Your task to perform on an android device: Add alienware aurora to the cart on target.com, then select checkout. Image 0: 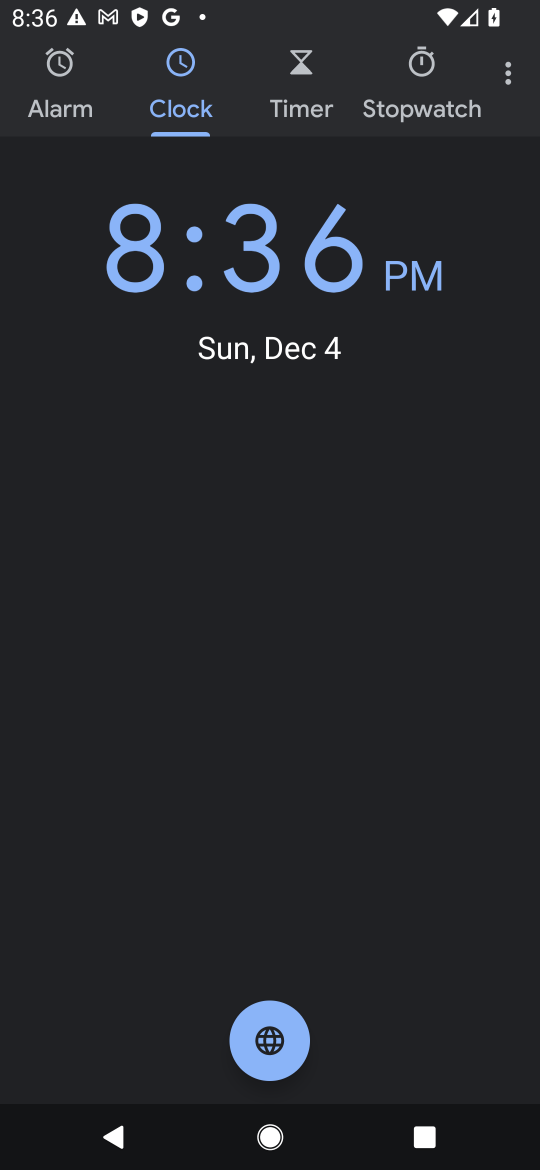
Step 0: press home button
Your task to perform on an android device: Add alienware aurora to the cart on target.com, then select checkout. Image 1: 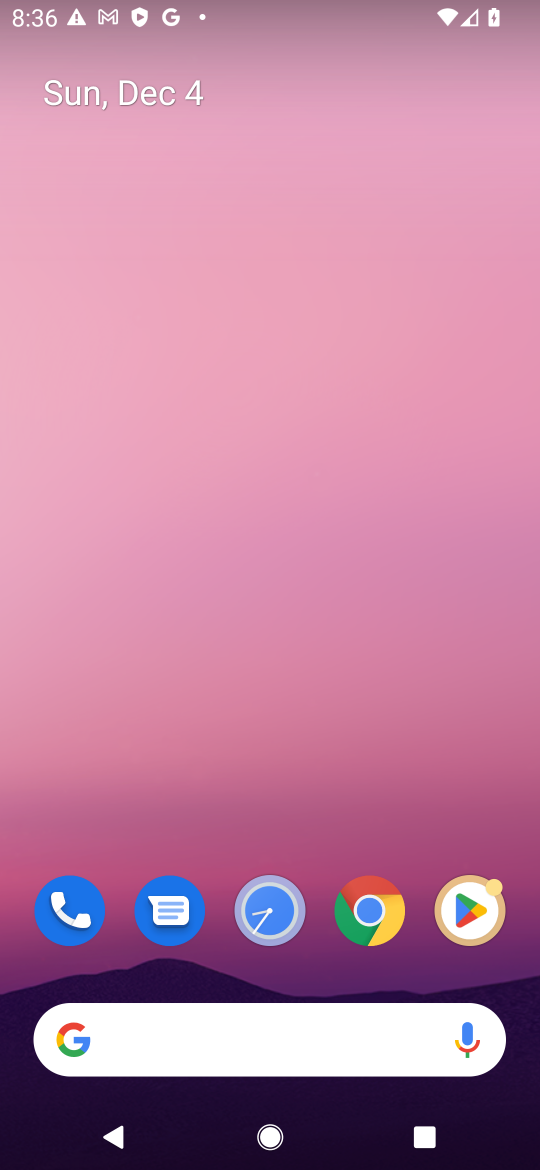
Step 1: drag from (357, 1117) to (373, 20)
Your task to perform on an android device: Add alienware aurora to the cart on target.com, then select checkout. Image 2: 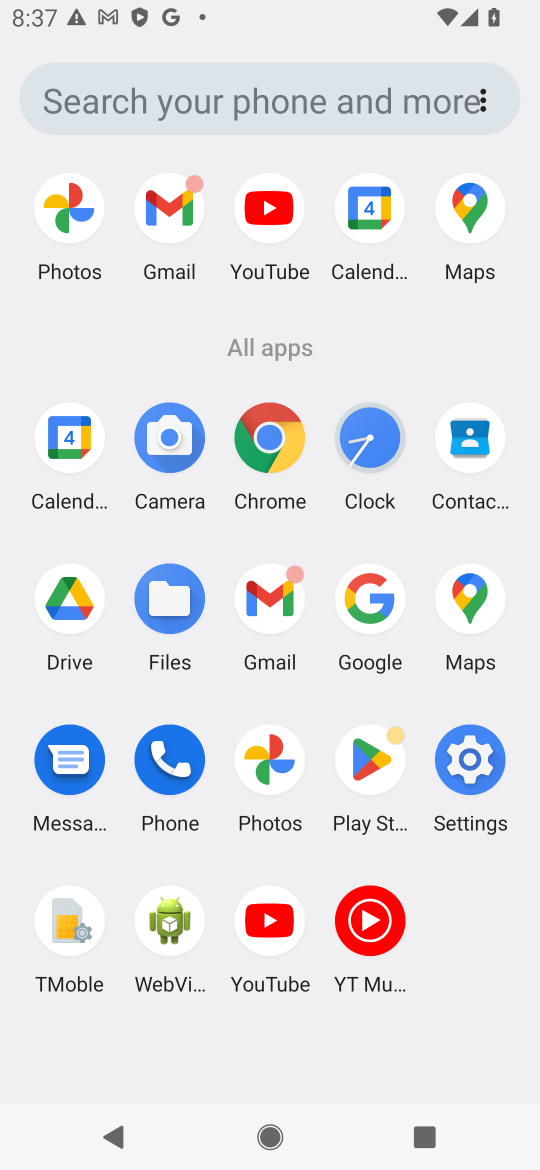
Step 2: click (267, 445)
Your task to perform on an android device: Add alienware aurora to the cart on target.com, then select checkout. Image 3: 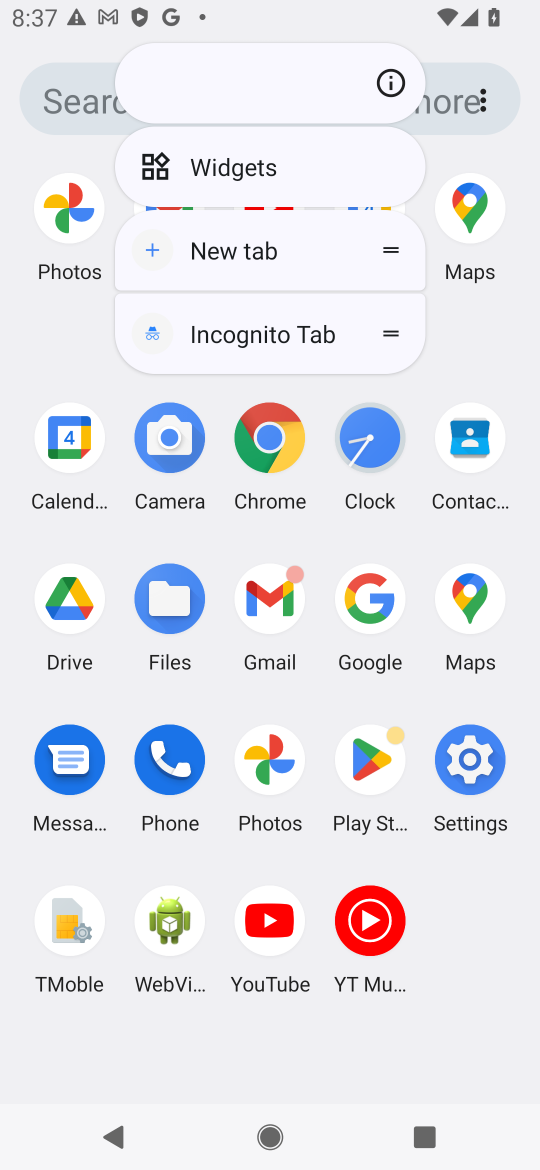
Step 3: click (277, 441)
Your task to perform on an android device: Add alienware aurora to the cart on target.com, then select checkout. Image 4: 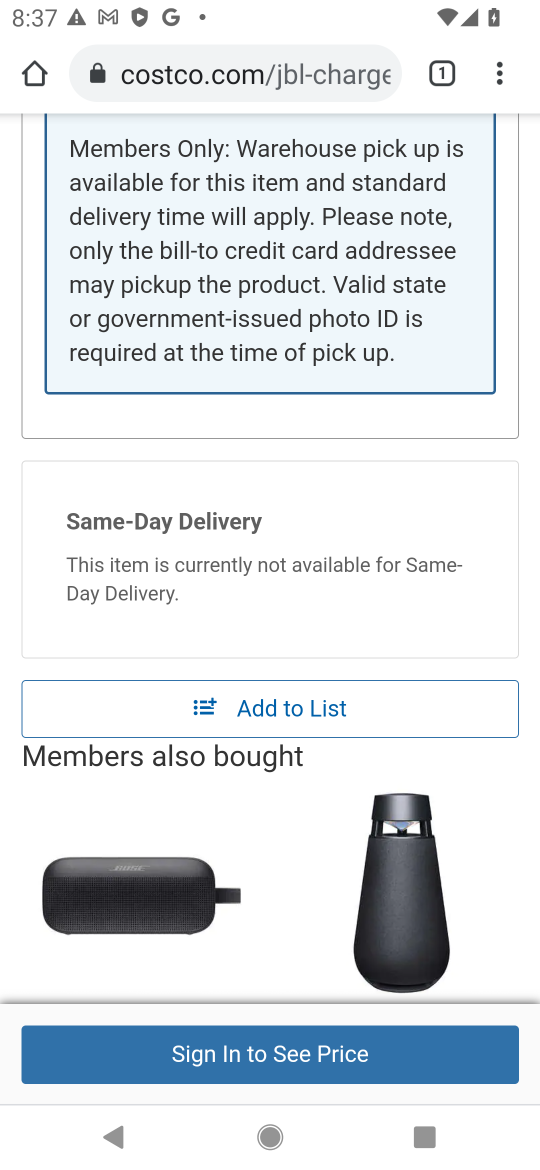
Step 4: click (213, 63)
Your task to perform on an android device: Add alienware aurora to the cart on target.com, then select checkout. Image 5: 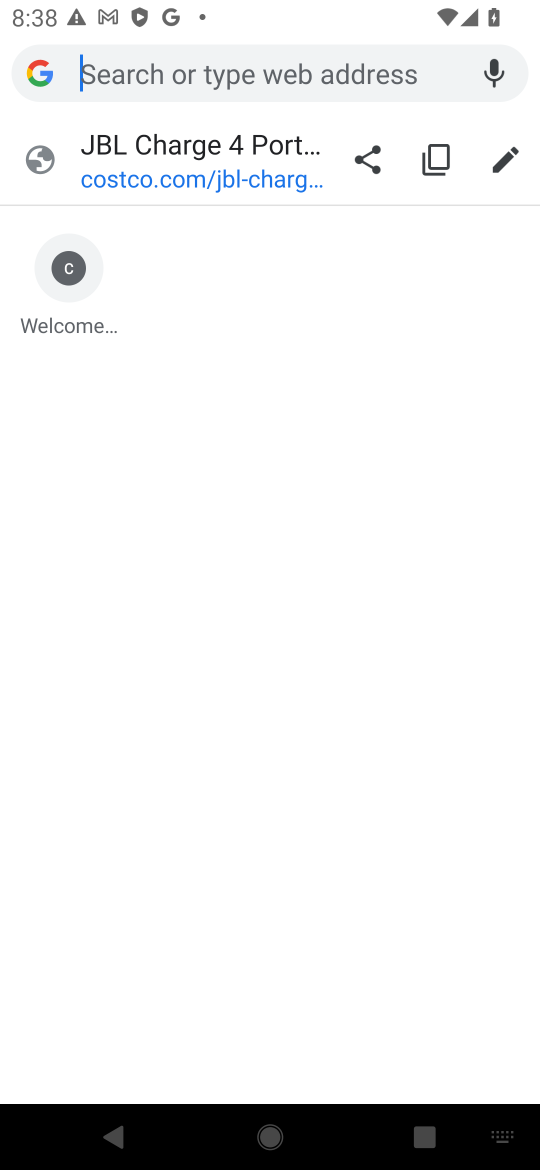
Step 5: type "target.com"
Your task to perform on an android device: Add alienware aurora to the cart on target.com, then select checkout. Image 6: 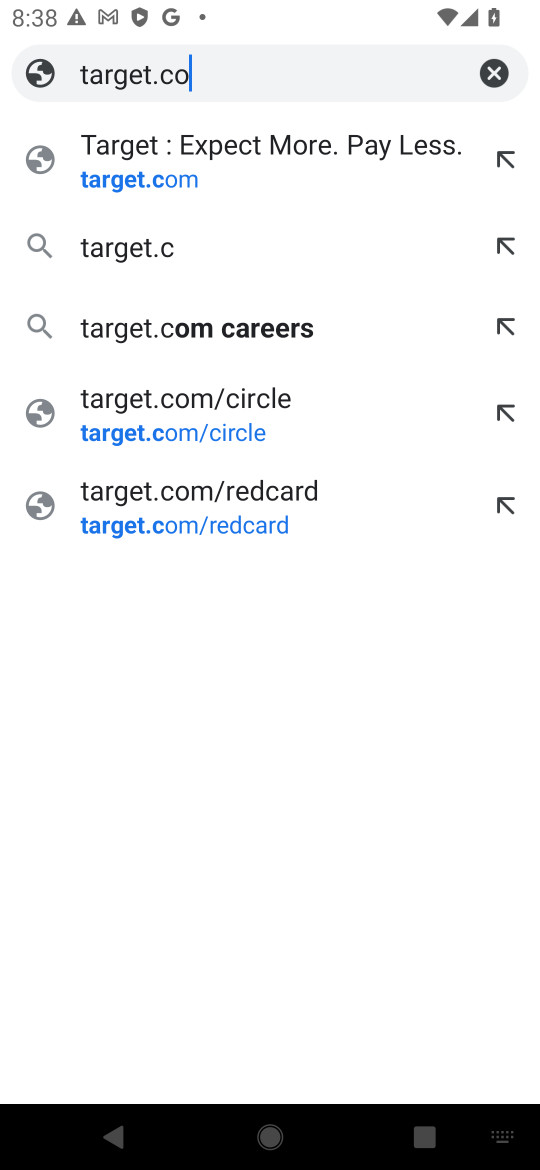
Step 6: type ""
Your task to perform on an android device: Add alienware aurora to the cart on target.com, then select checkout. Image 7: 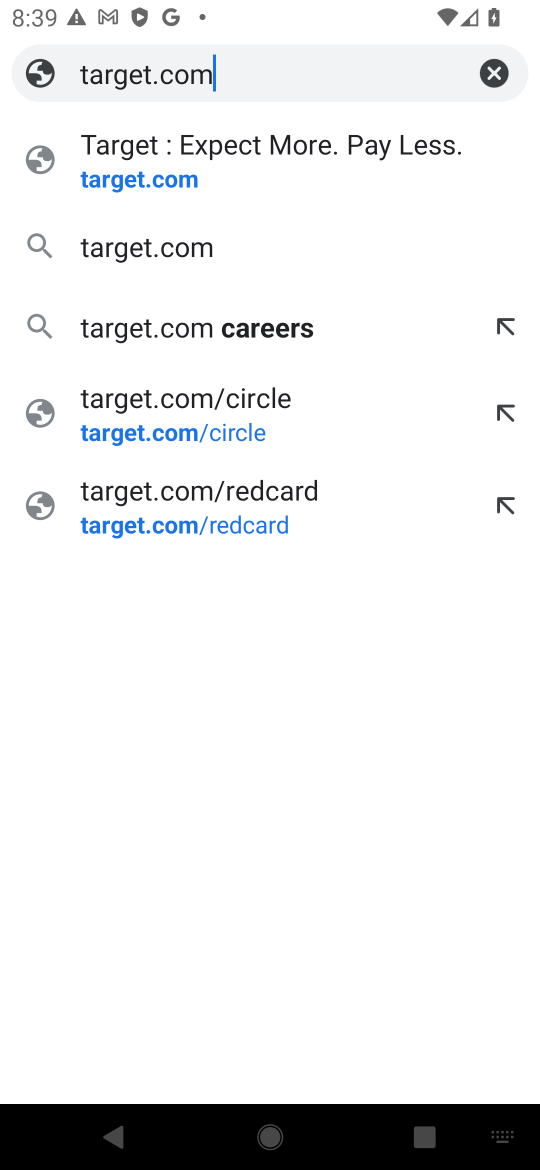
Step 7: click (149, 178)
Your task to perform on an android device: Add alienware aurora to the cart on target.com, then select checkout. Image 8: 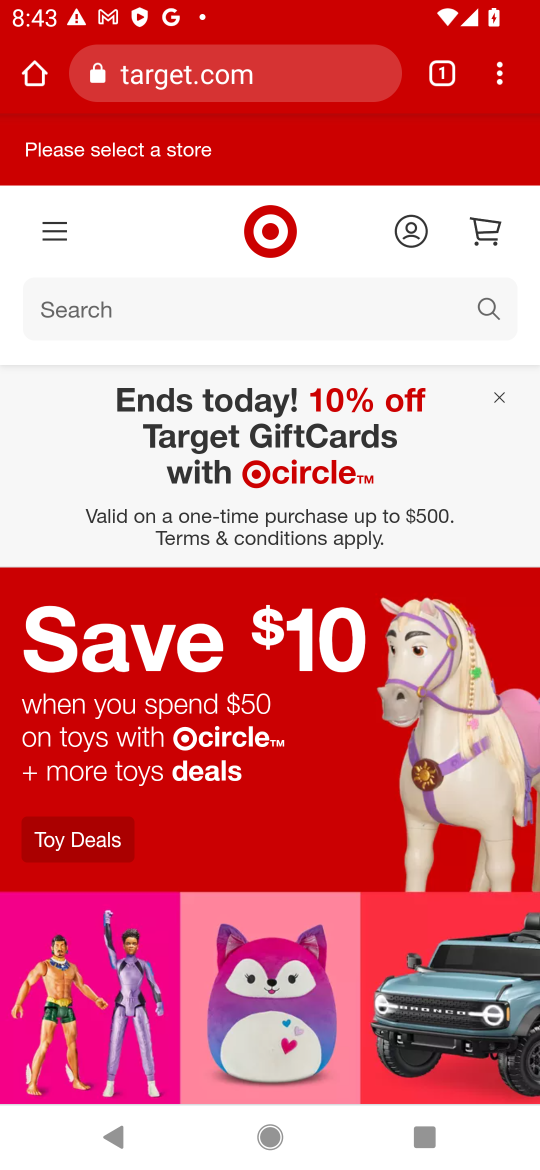
Step 8: click (331, 300)
Your task to perform on an android device: Add alienware aurora to the cart on target.com, then select checkout. Image 9: 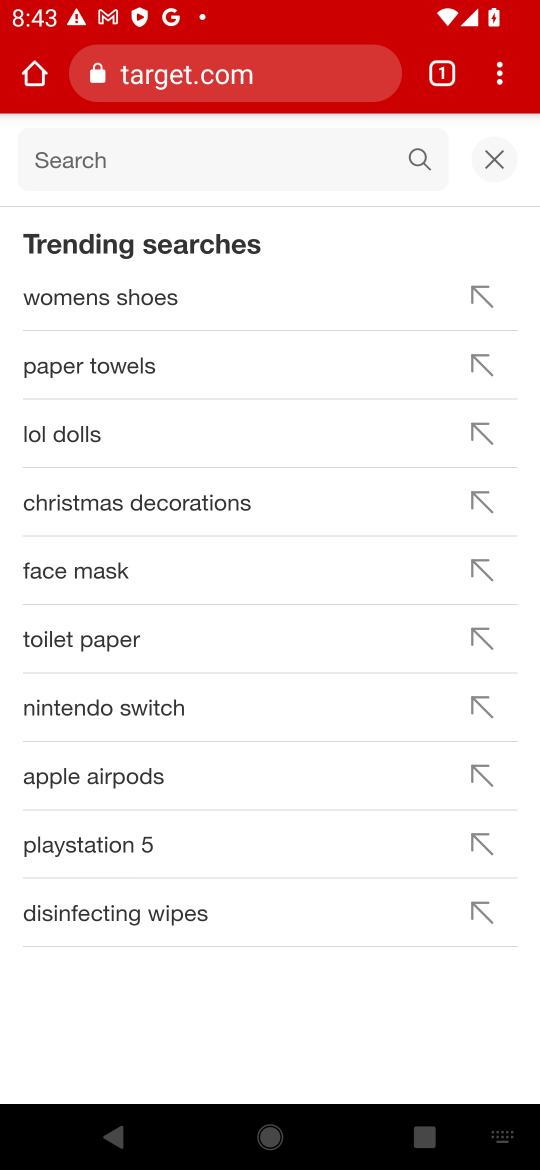
Step 9: type "target.com"
Your task to perform on an android device: Add alienware aurora to the cart on target.com, then select checkout. Image 10: 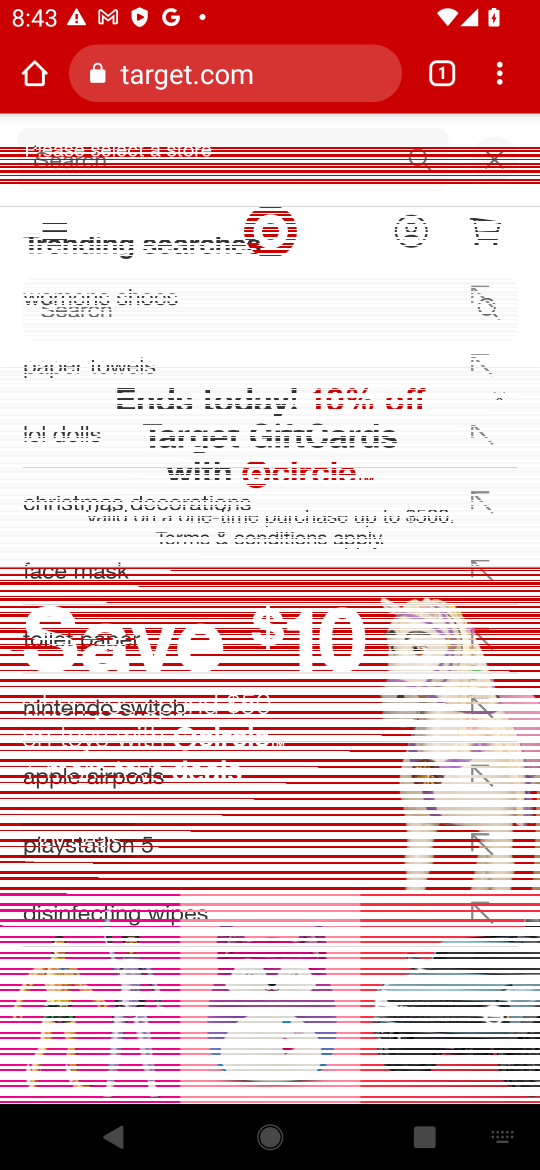
Step 10: type ""
Your task to perform on an android device: Add alienware aurora to the cart on target.com, then select checkout. Image 11: 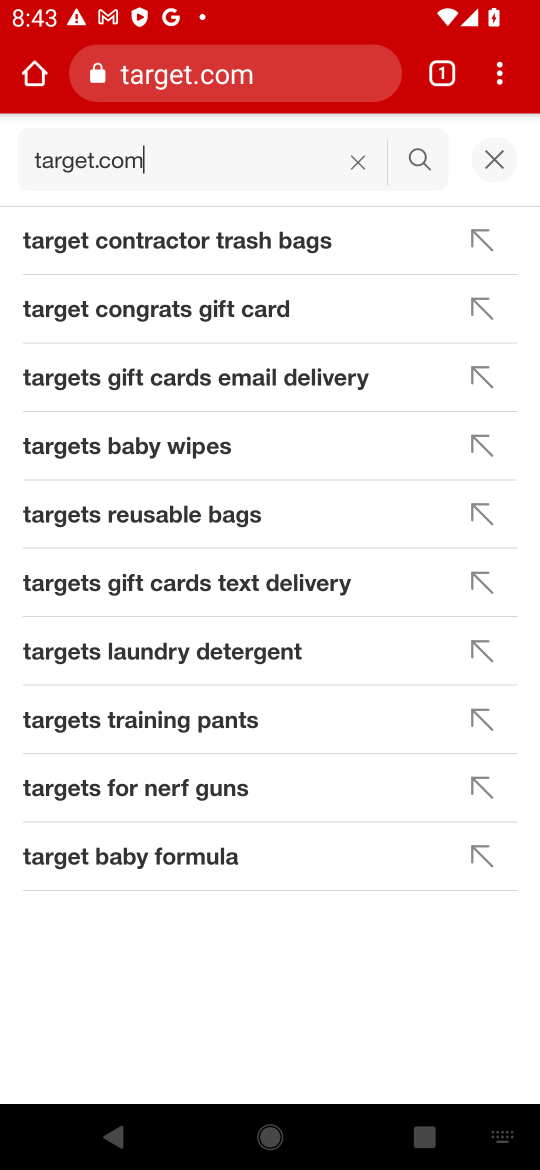
Step 11: click (417, 158)
Your task to perform on an android device: Add alienware aurora to the cart on target.com, then select checkout. Image 12: 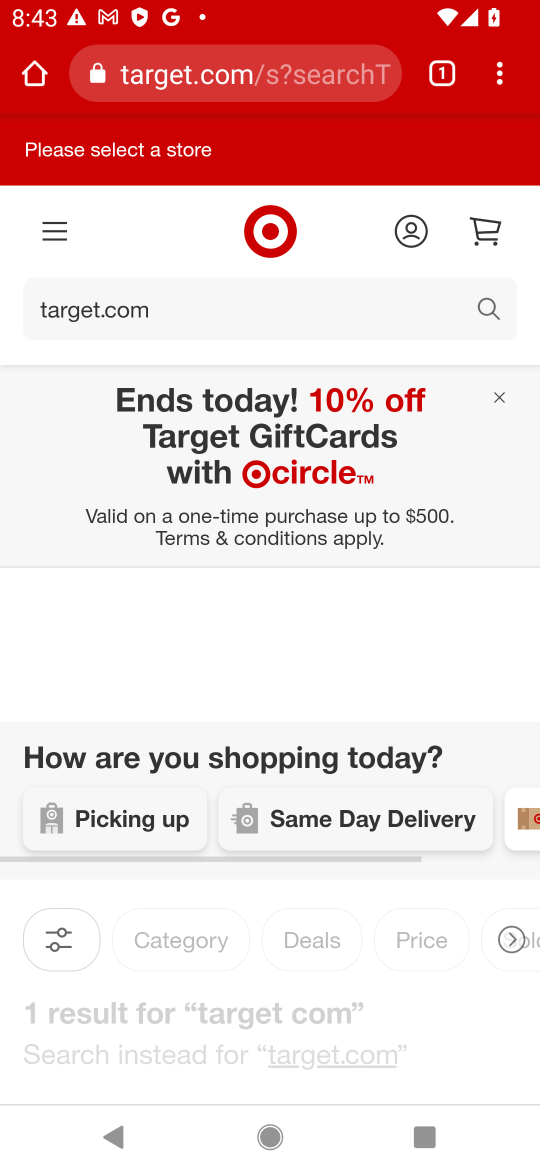
Step 12: task complete